Your task to perform on an android device: Open my contact list Image 0: 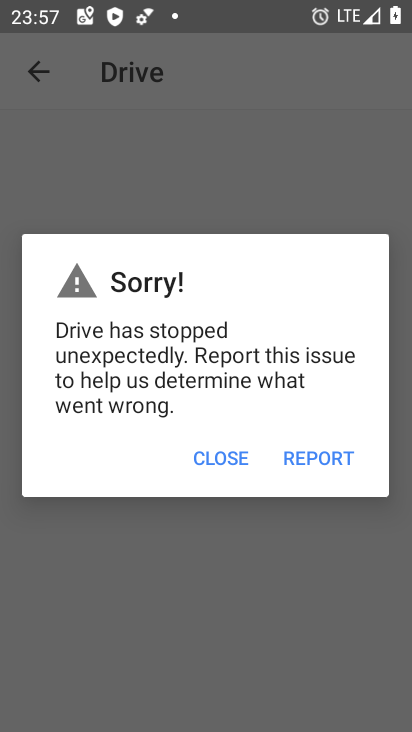
Step 0: press home button
Your task to perform on an android device: Open my contact list Image 1: 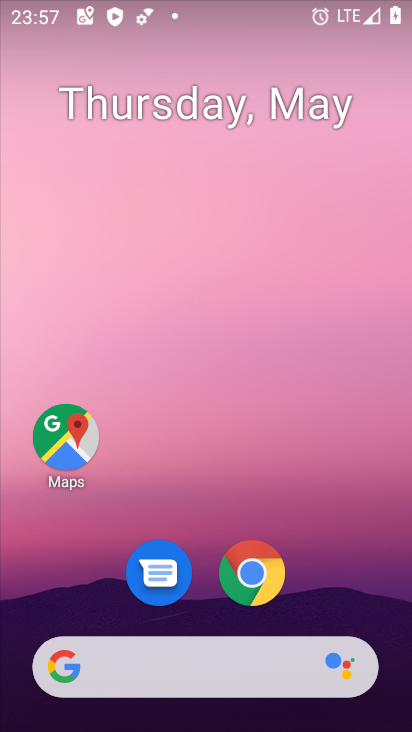
Step 1: drag from (211, 608) to (198, 251)
Your task to perform on an android device: Open my contact list Image 2: 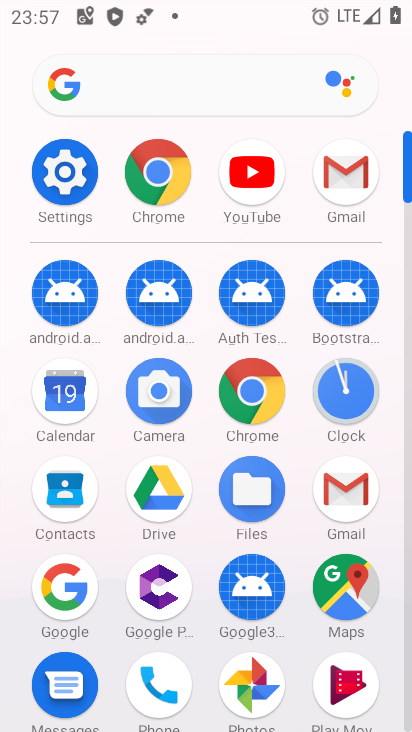
Step 2: drag from (101, 546) to (159, 339)
Your task to perform on an android device: Open my contact list Image 3: 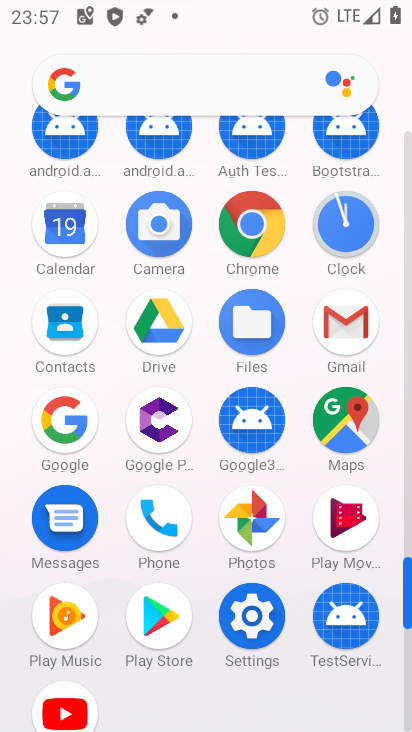
Step 3: drag from (220, 295) to (204, 438)
Your task to perform on an android device: Open my contact list Image 4: 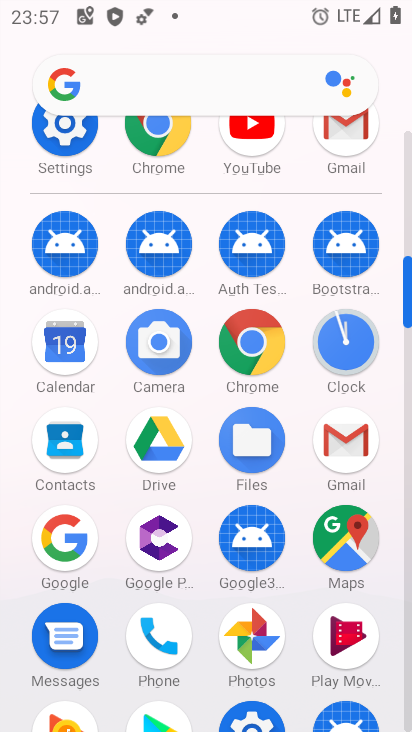
Step 4: click (65, 449)
Your task to perform on an android device: Open my contact list Image 5: 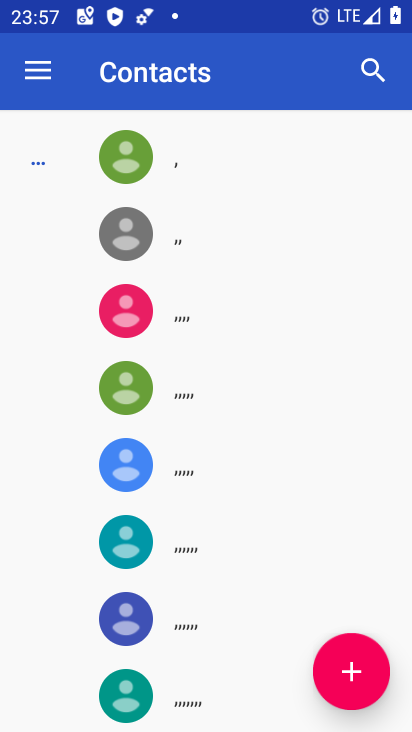
Step 5: task complete